Your task to perform on an android device: Do I have any events this weekend? Image 0: 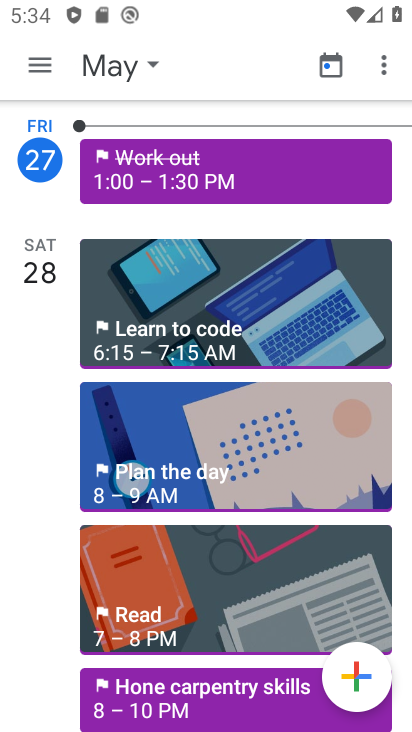
Step 0: drag from (275, 301) to (269, 112)
Your task to perform on an android device: Do I have any events this weekend? Image 1: 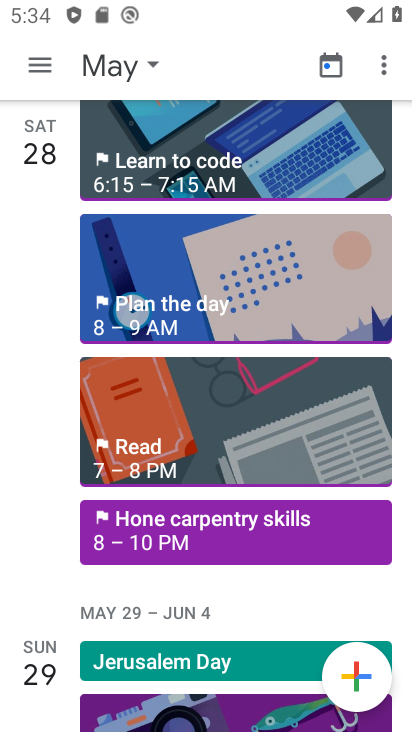
Step 1: task complete